Your task to perform on an android device: stop showing notifications on the lock screen Image 0: 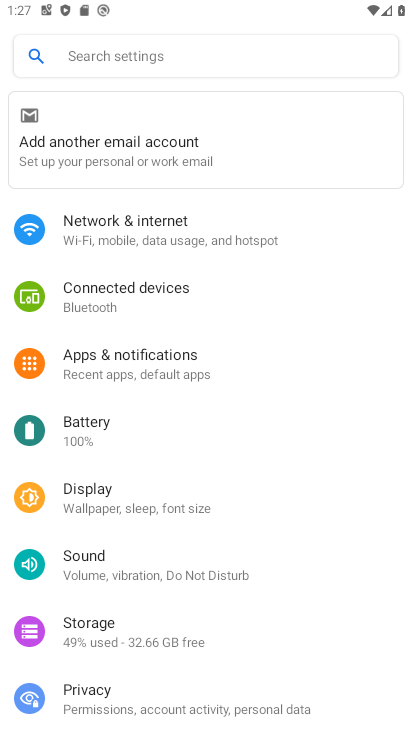
Step 0: press home button
Your task to perform on an android device: stop showing notifications on the lock screen Image 1: 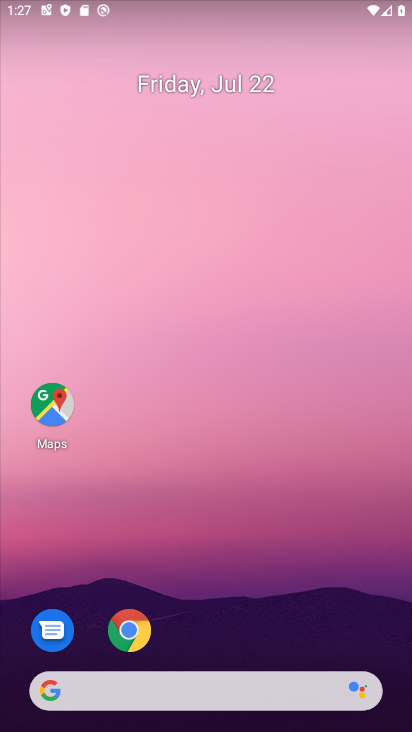
Step 1: drag from (200, 656) to (193, 267)
Your task to perform on an android device: stop showing notifications on the lock screen Image 2: 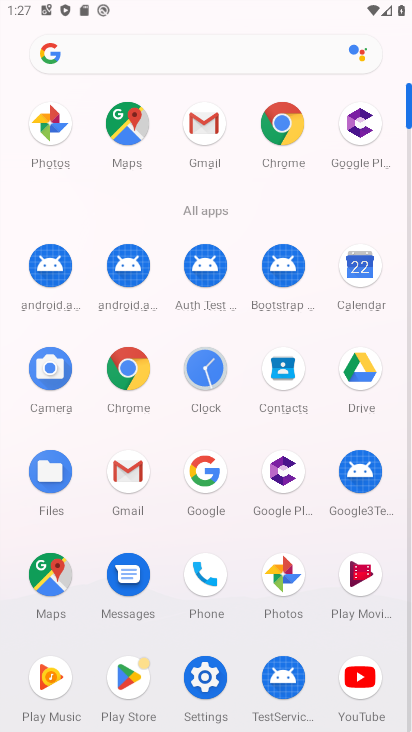
Step 2: click (199, 684)
Your task to perform on an android device: stop showing notifications on the lock screen Image 3: 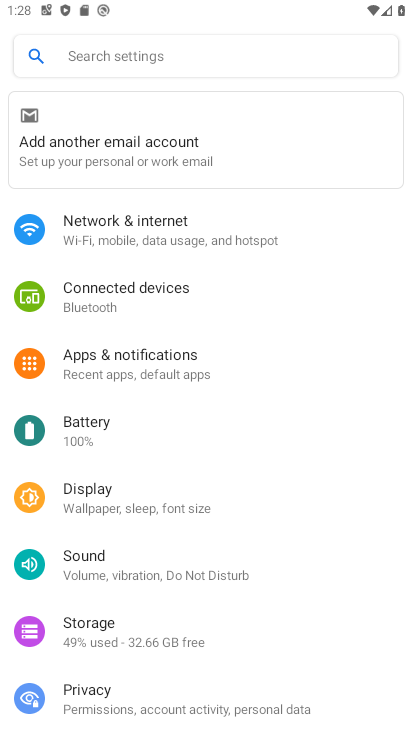
Step 3: drag from (125, 508) to (165, 330)
Your task to perform on an android device: stop showing notifications on the lock screen Image 4: 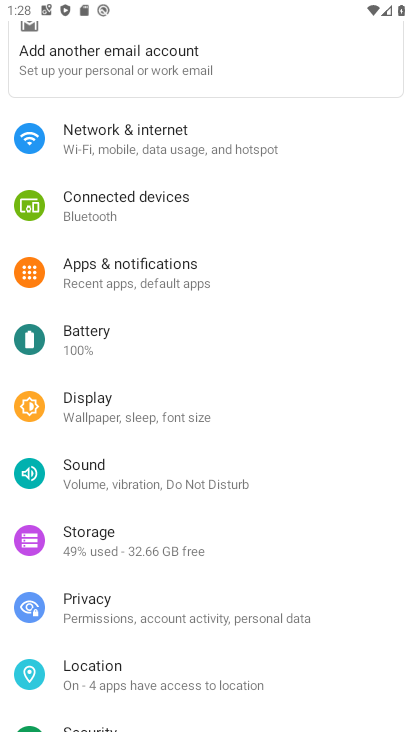
Step 4: click (129, 267)
Your task to perform on an android device: stop showing notifications on the lock screen Image 5: 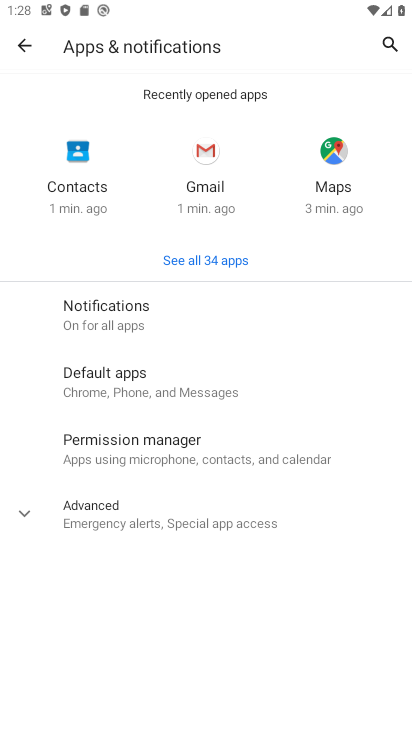
Step 5: click (88, 313)
Your task to perform on an android device: stop showing notifications on the lock screen Image 6: 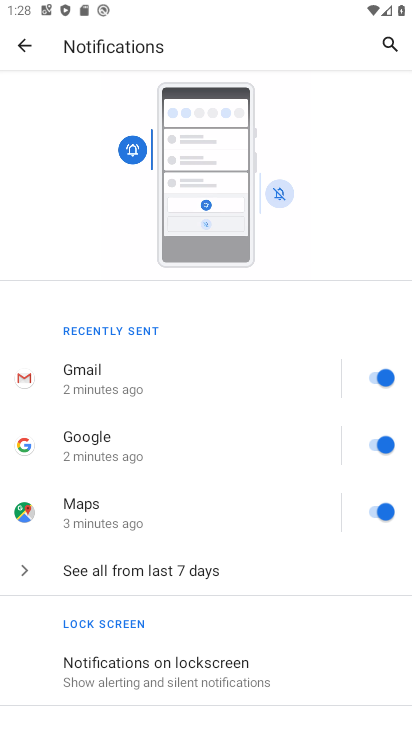
Step 6: click (131, 669)
Your task to perform on an android device: stop showing notifications on the lock screen Image 7: 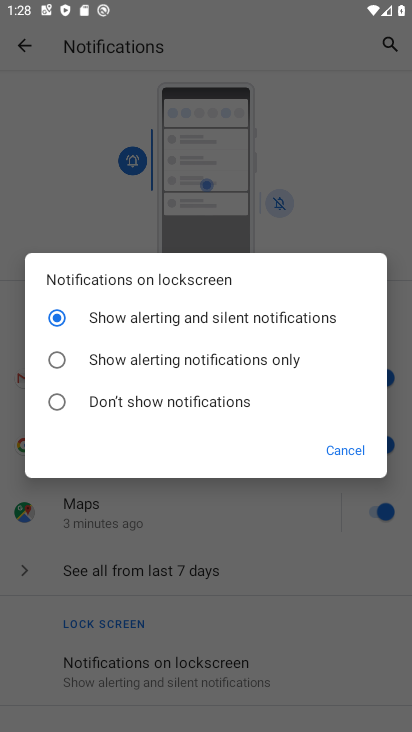
Step 7: click (60, 396)
Your task to perform on an android device: stop showing notifications on the lock screen Image 8: 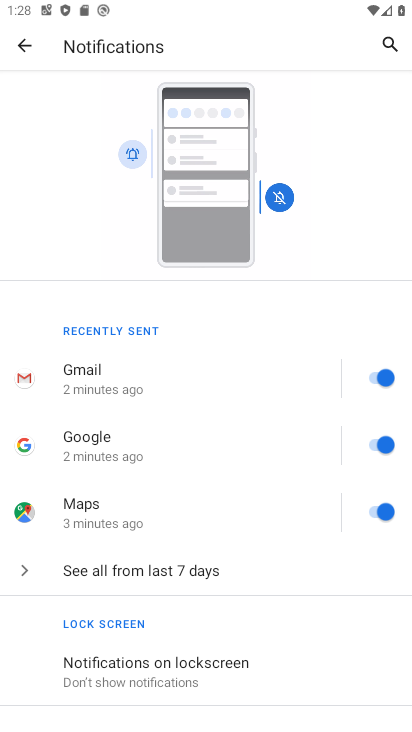
Step 8: task complete